Your task to perform on an android device: open device folders in google photos Image 0: 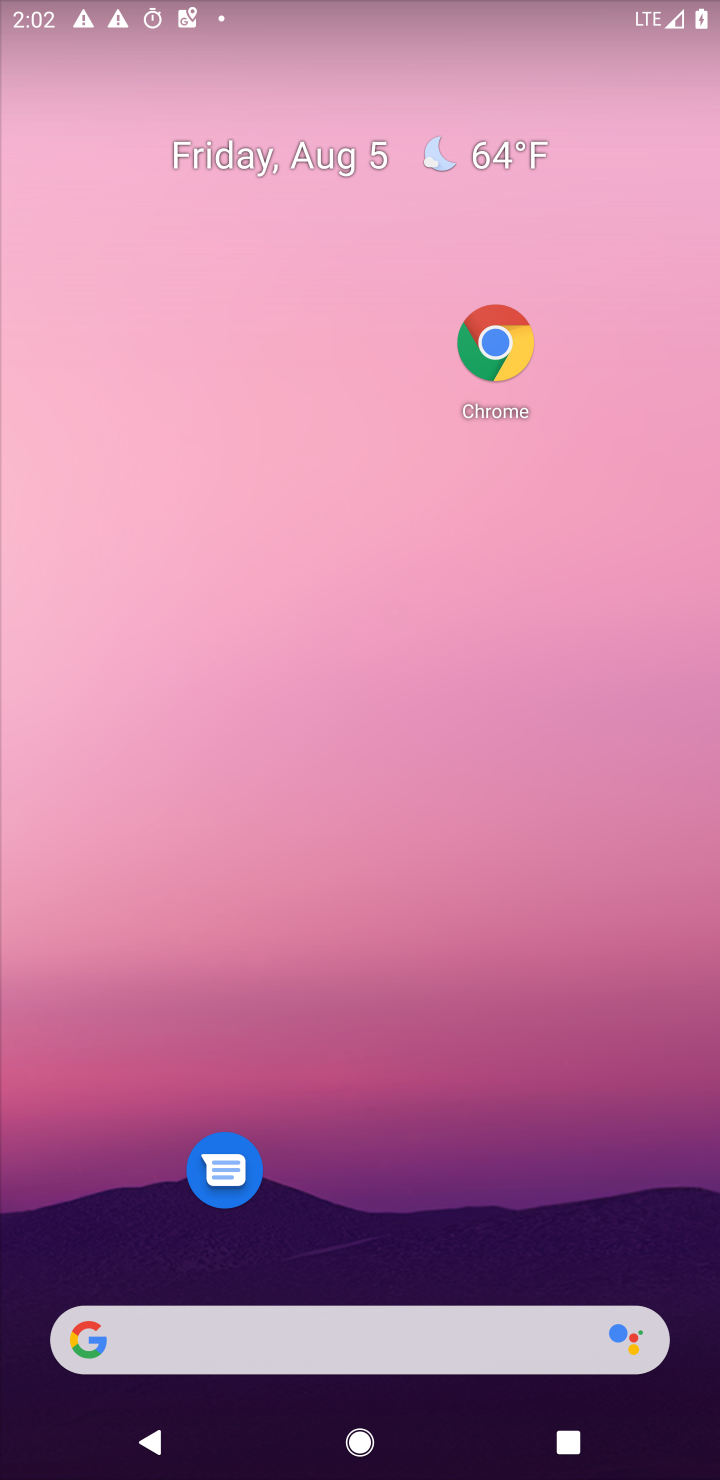
Step 0: drag from (371, 1297) to (312, 215)
Your task to perform on an android device: open device folders in google photos Image 1: 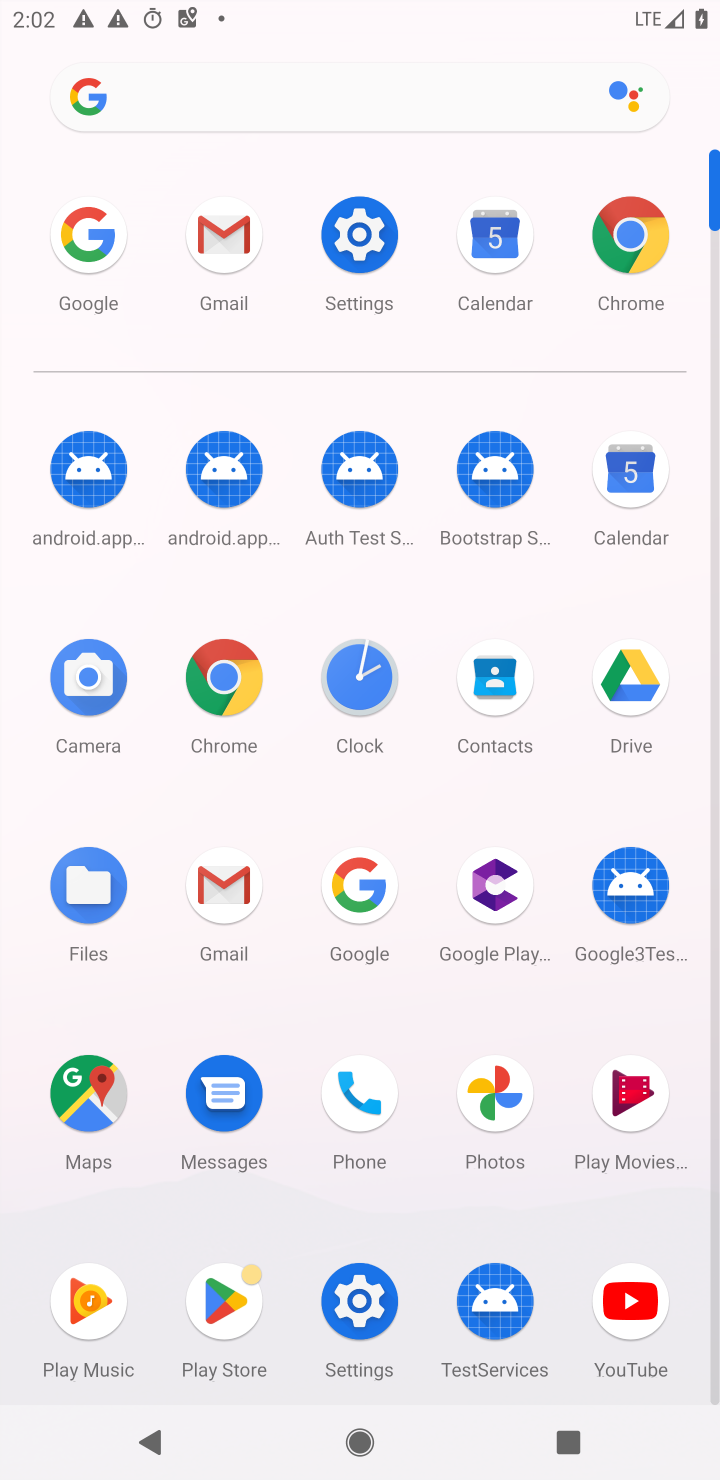
Step 1: click (500, 1116)
Your task to perform on an android device: open device folders in google photos Image 2: 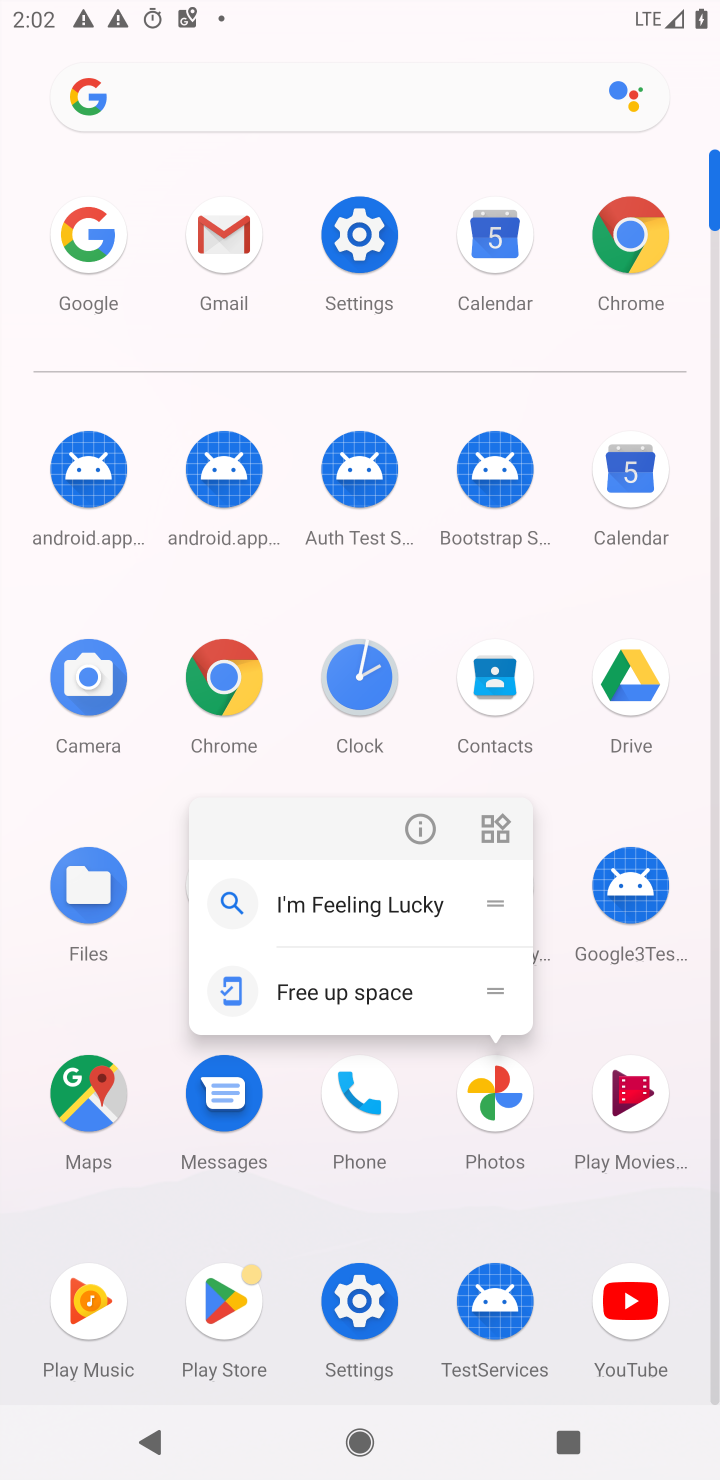
Step 2: click (498, 1124)
Your task to perform on an android device: open device folders in google photos Image 3: 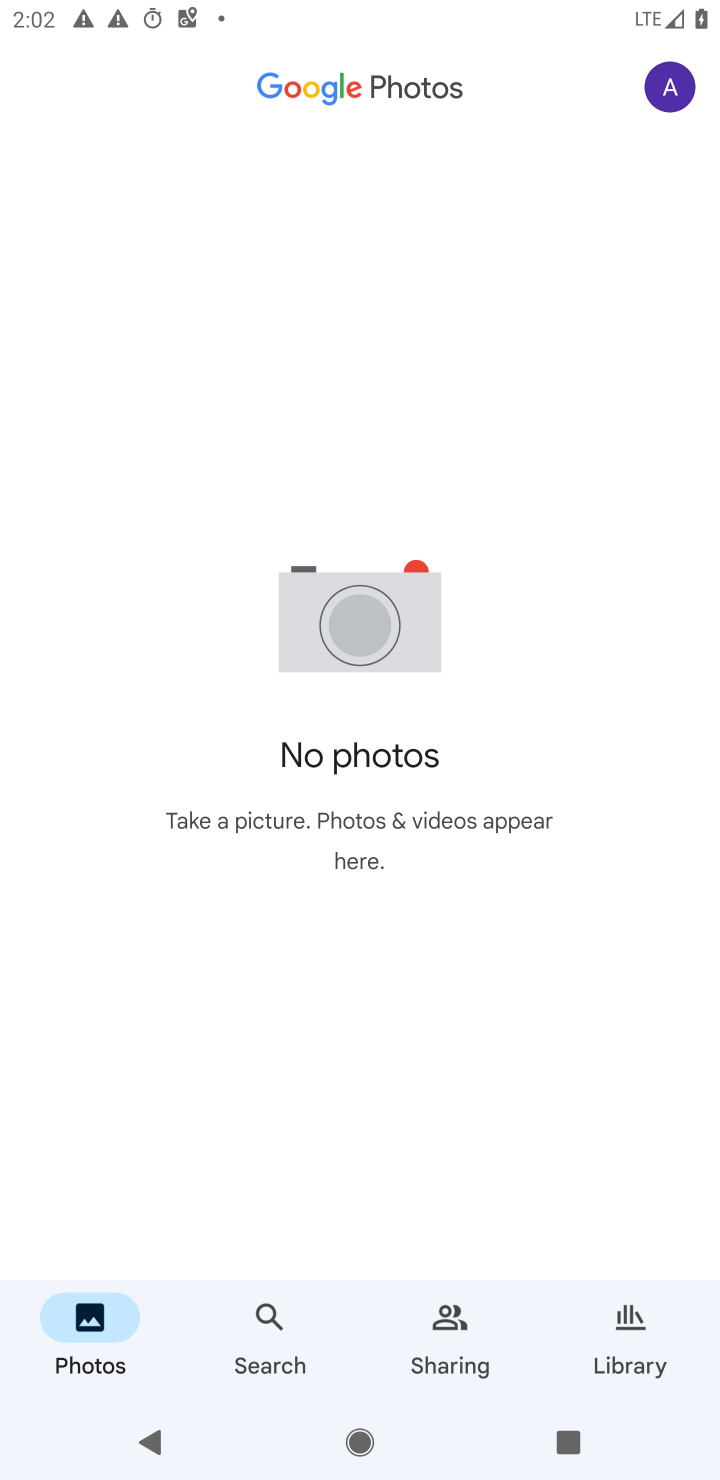
Step 3: click (673, 107)
Your task to perform on an android device: open device folders in google photos Image 4: 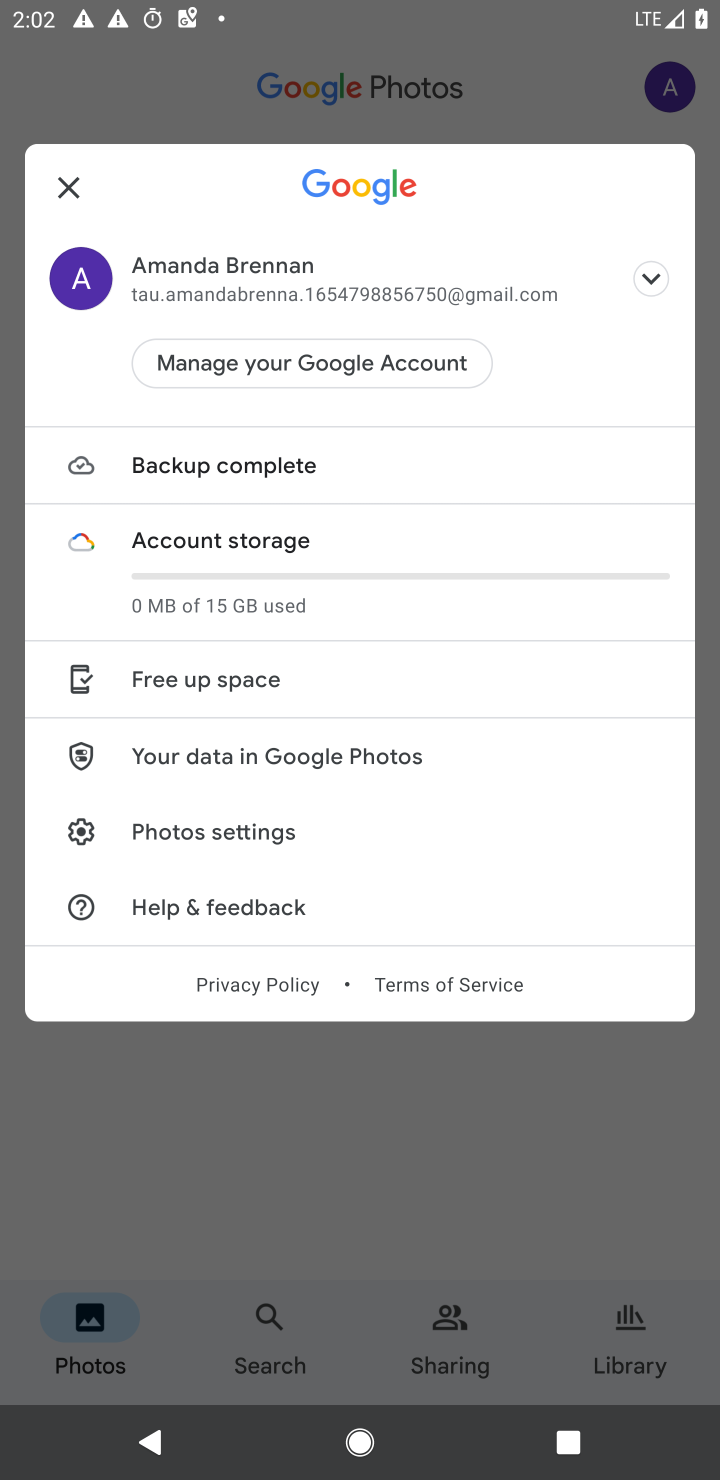
Step 4: click (220, 841)
Your task to perform on an android device: open device folders in google photos Image 5: 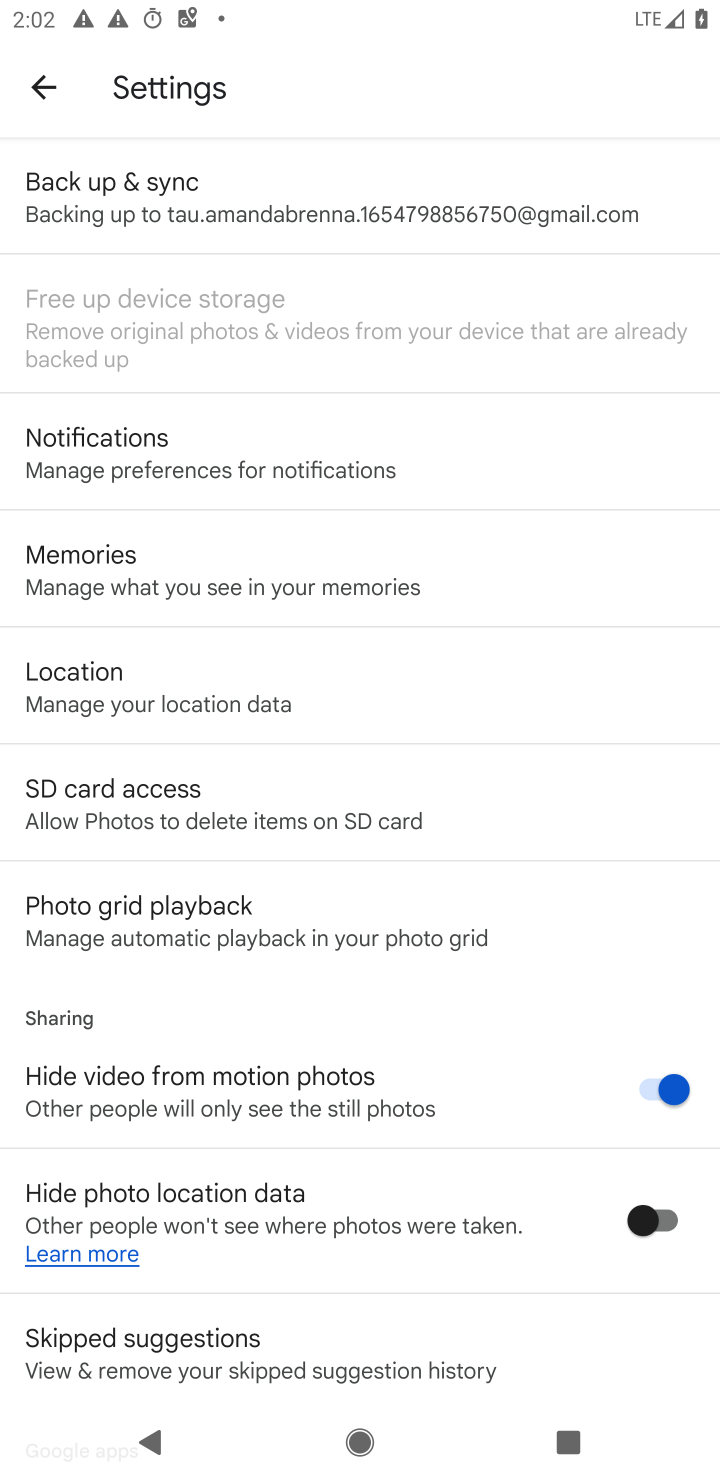
Step 5: drag from (196, 1065) to (327, 101)
Your task to perform on an android device: open device folders in google photos Image 6: 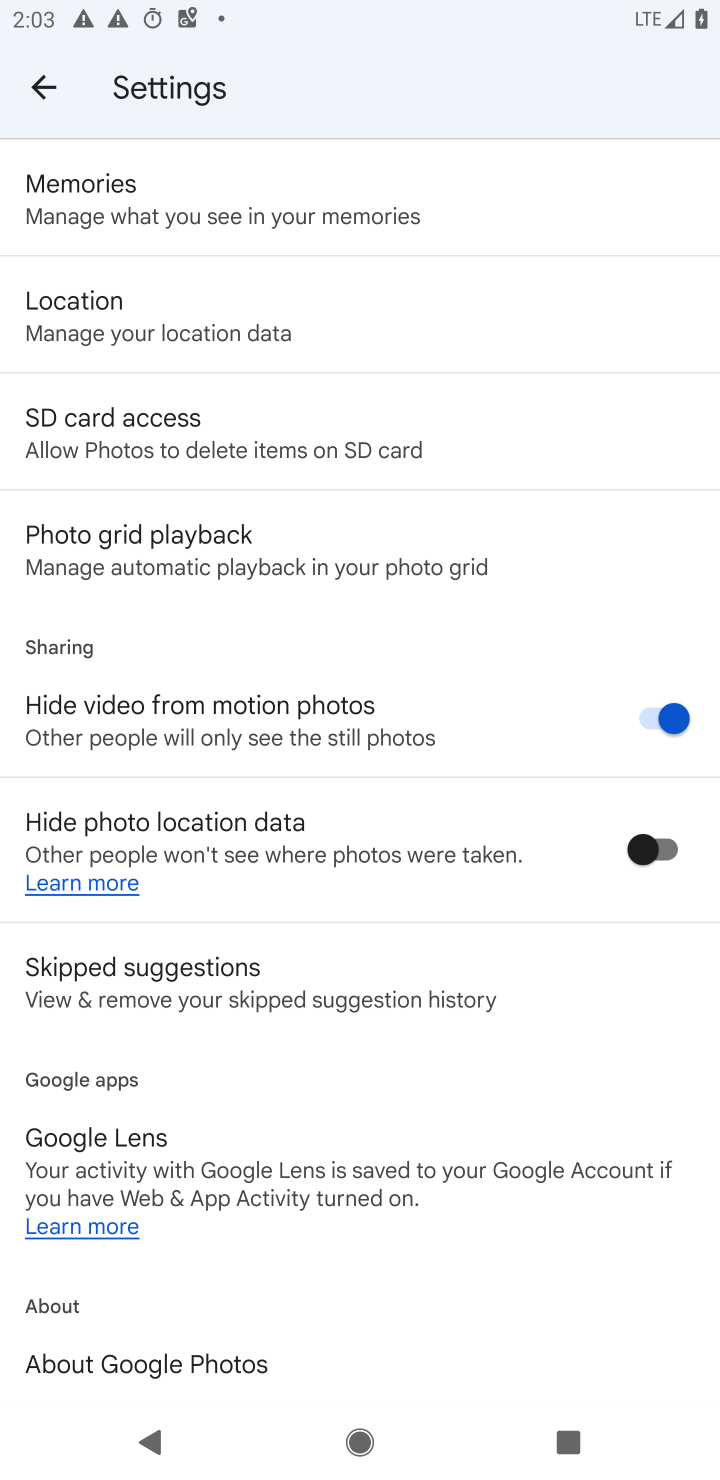
Step 6: drag from (349, 597) to (222, 1262)
Your task to perform on an android device: open device folders in google photos Image 7: 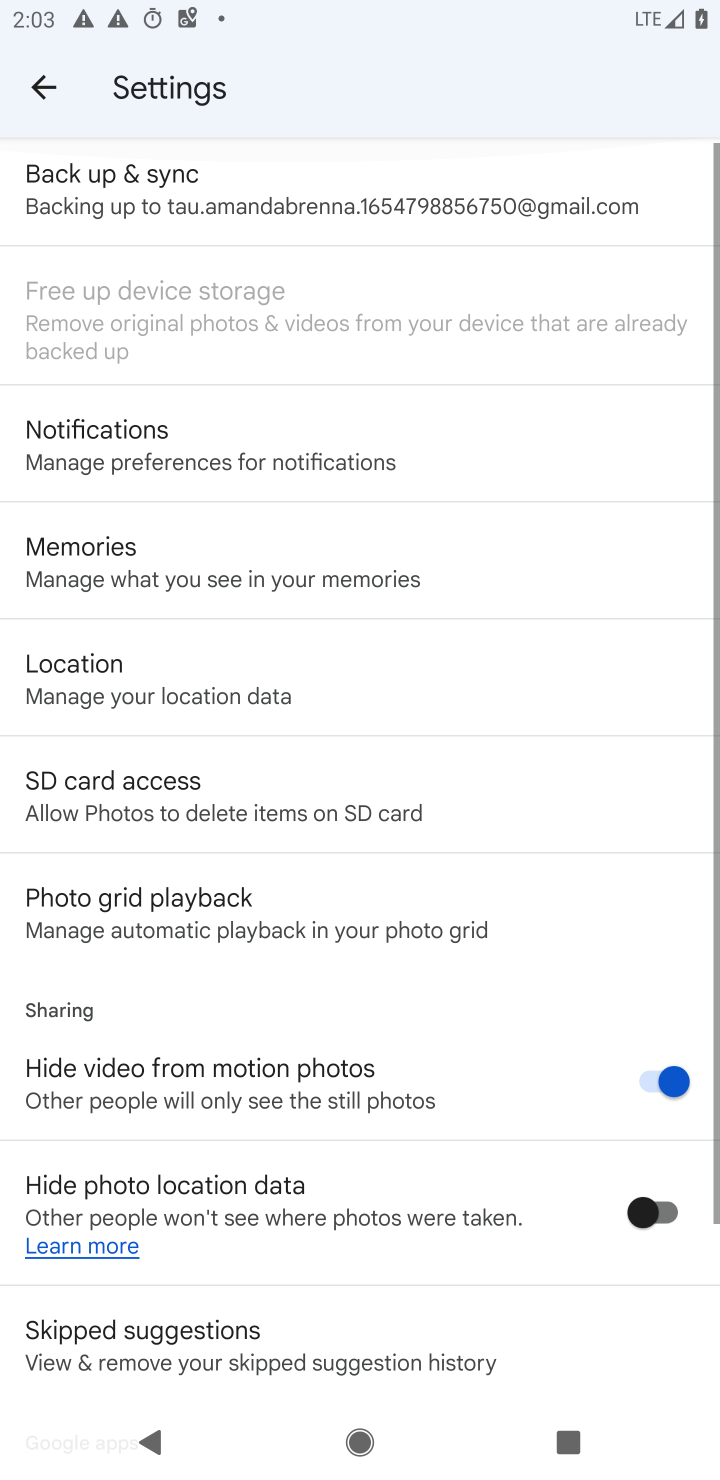
Step 7: click (204, 207)
Your task to perform on an android device: open device folders in google photos Image 8: 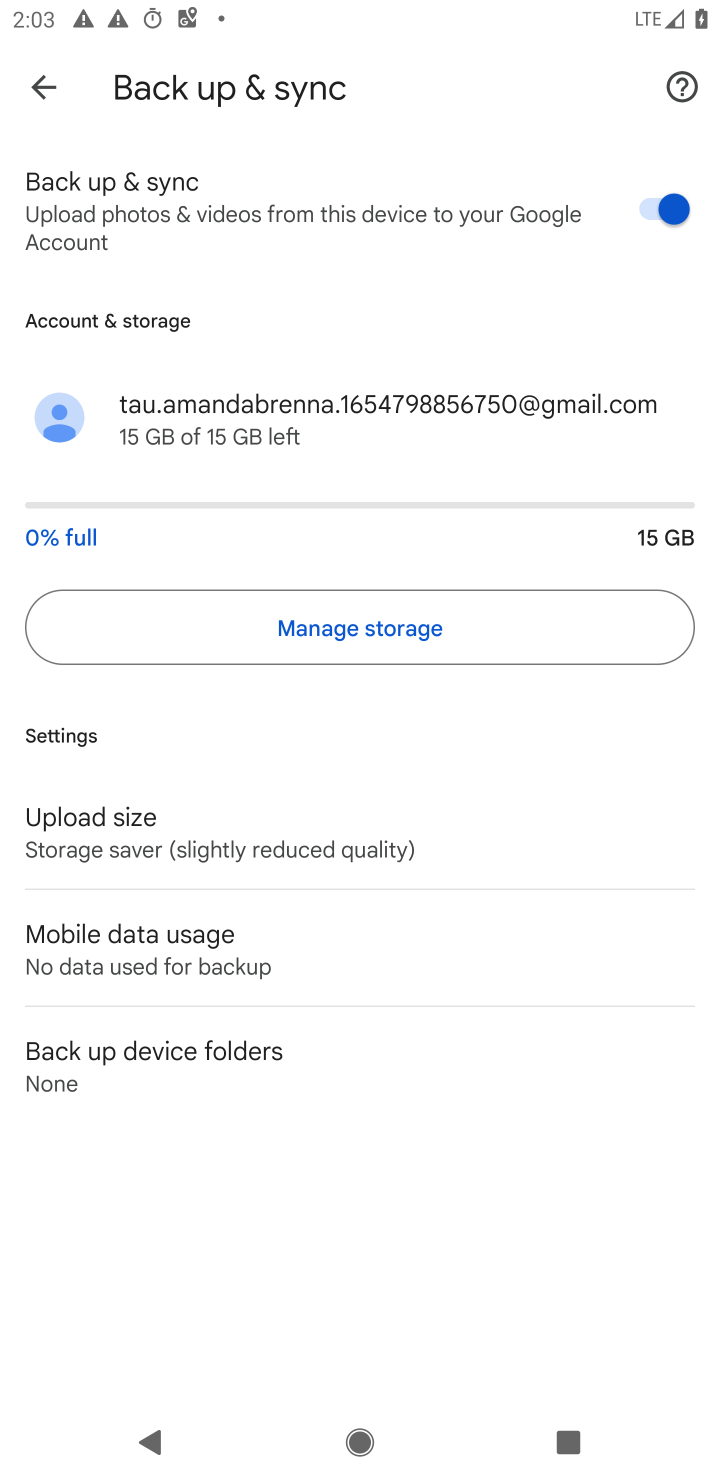
Step 8: click (251, 1058)
Your task to perform on an android device: open device folders in google photos Image 9: 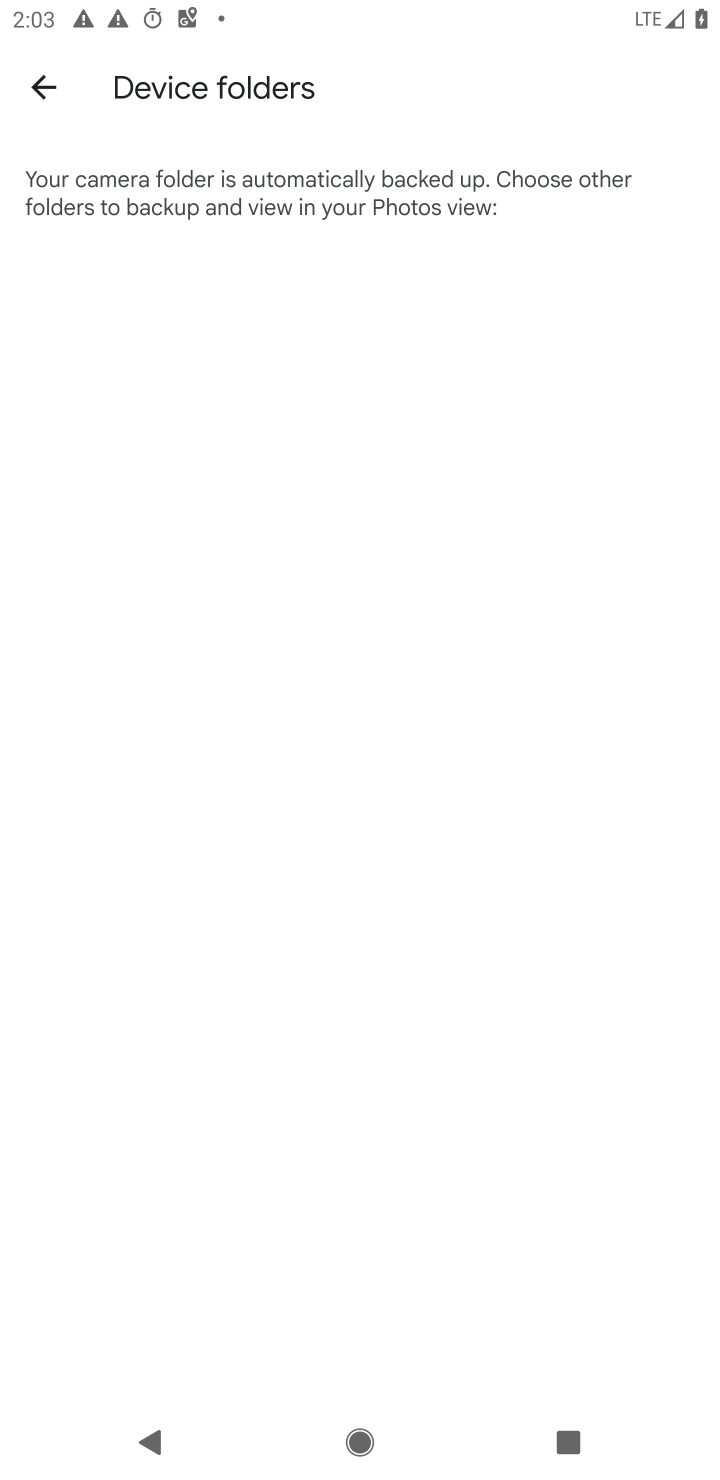
Step 9: task complete